Your task to perform on an android device: toggle location history Image 0: 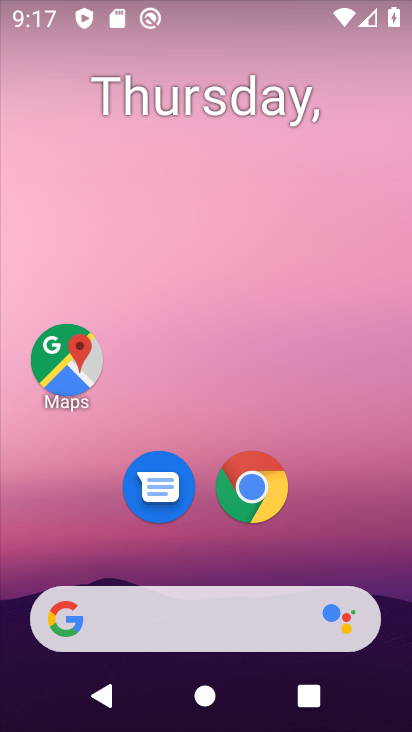
Step 0: drag from (309, 543) to (147, 141)
Your task to perform on an android device: toggle location history Image 1: 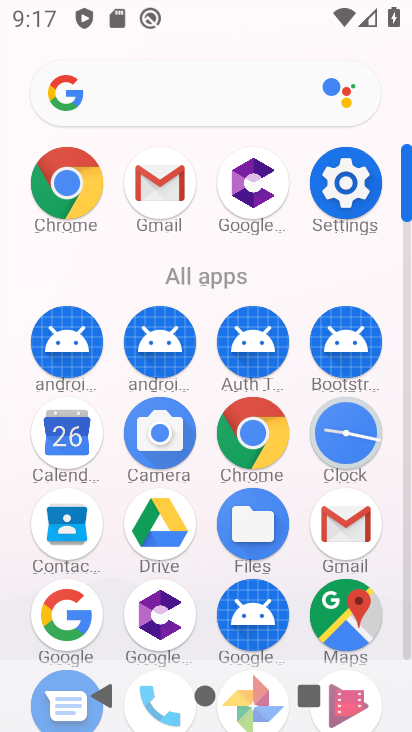
Step 1: click (357, 181)
Your task to perform on an android device: toggle location history Image 2: 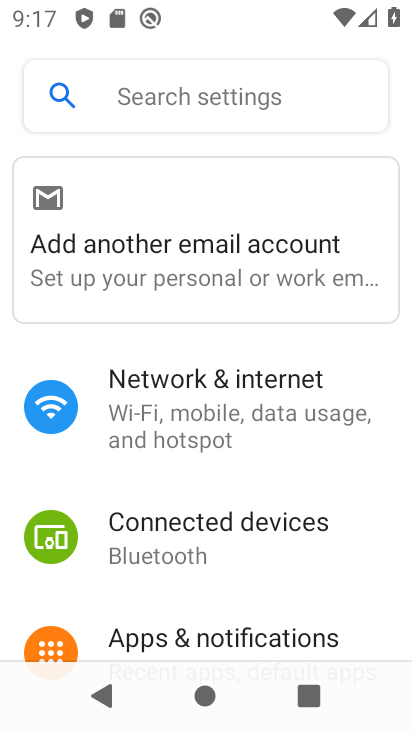
Step 2: drag from (232, 526) to (128, 64)
Your task to perform on an android device: toggle location history Image 3: 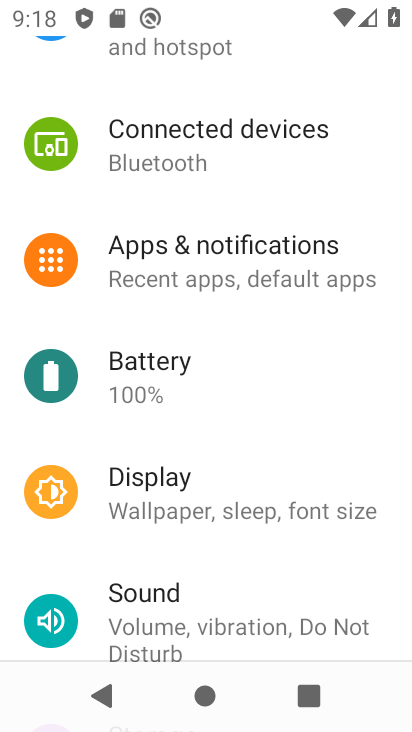
Step 3: drag from (198, 638) to (89, 118)
Your task to perform on an android device: toggle location history Image 4: 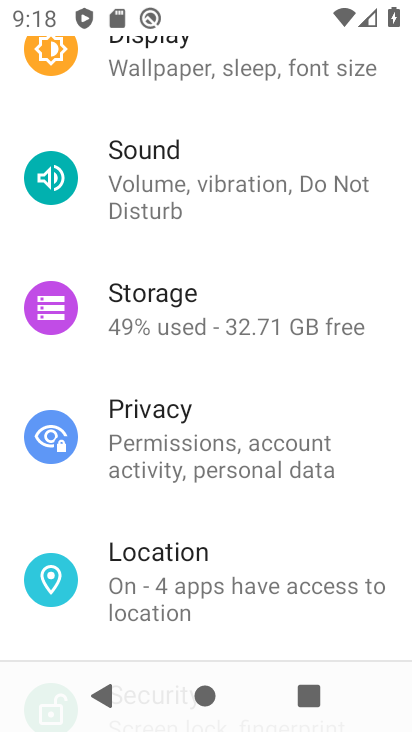
Step 4: click (170, 575)
Your task to perform on an android device: toggle location history Image 5: 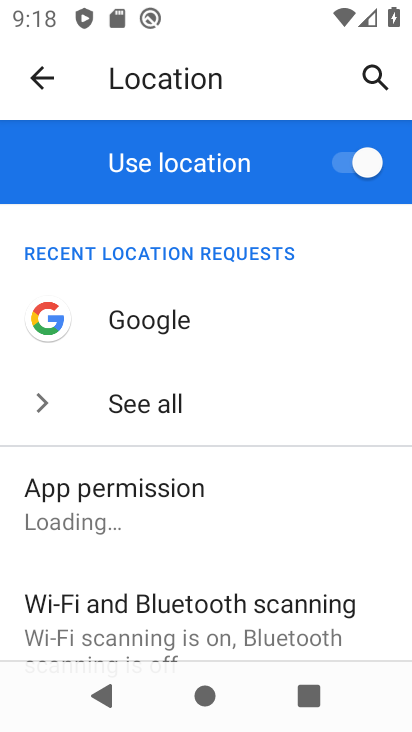
Step 5: drag from (204, 598) to (137, 145)
Your task to perform on an android device: toggle location history Image 6: 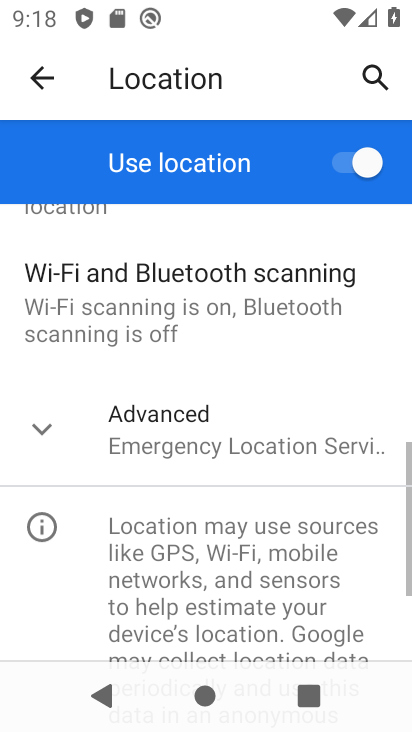
Step 6: click (129, 427)
Your task to perform on an android device: toggle location history Image 7: 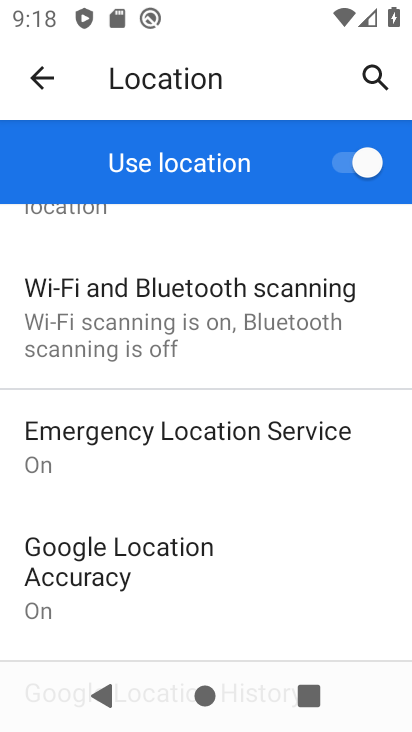
Step 7: drag from (165, 581) to (95, 176)
Your task to perform on an android device: toggle location history Image 8: 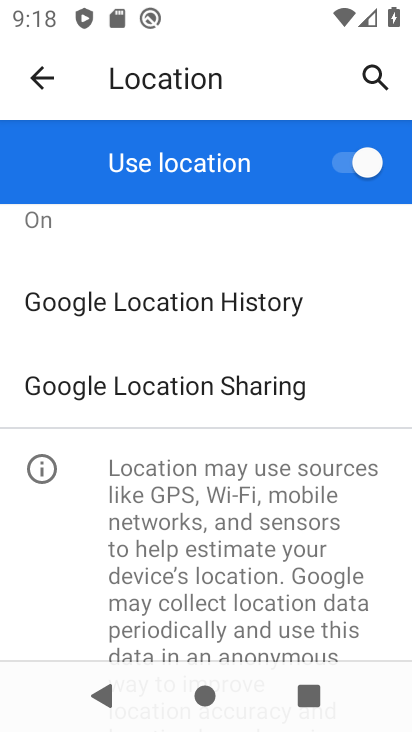
Step 8: click (130, 305)
Your task to perform on an android device: toggle location history Image 9: 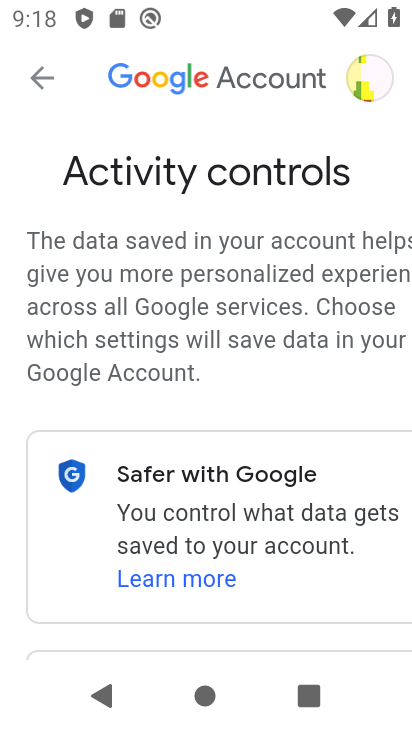
Step 9: drag from (258, 498) to (222, 112)
Your task to perform on an android device: toggle location history Image 10: 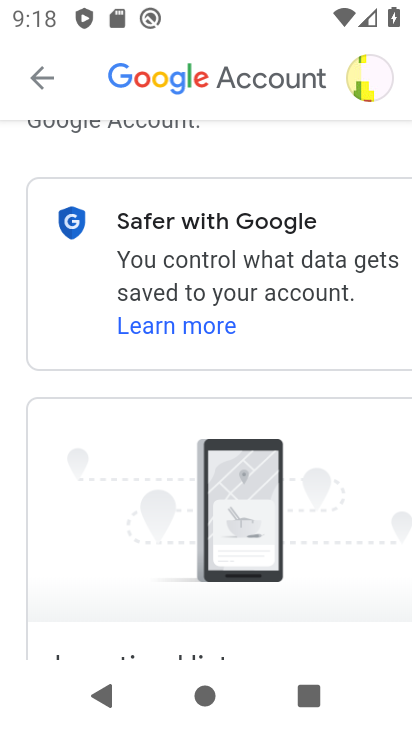
Step 10: drag from (289, 522) to (202, 146)
Your task to perform on an android device: toggle location history Image 11: 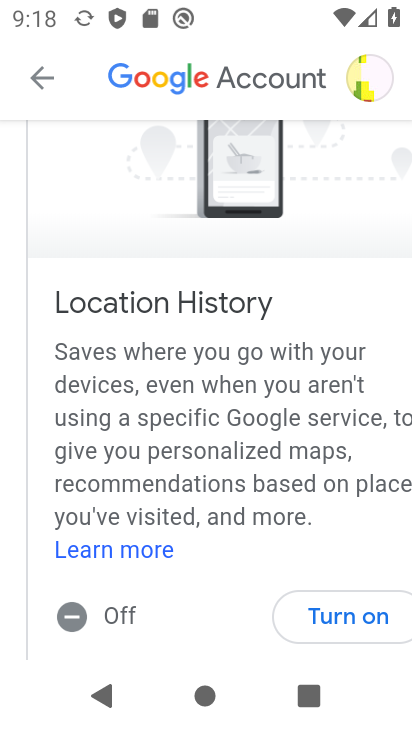
Step 11: click (329, 615)
Your task to perform on an android device: toggle location history Image 12: 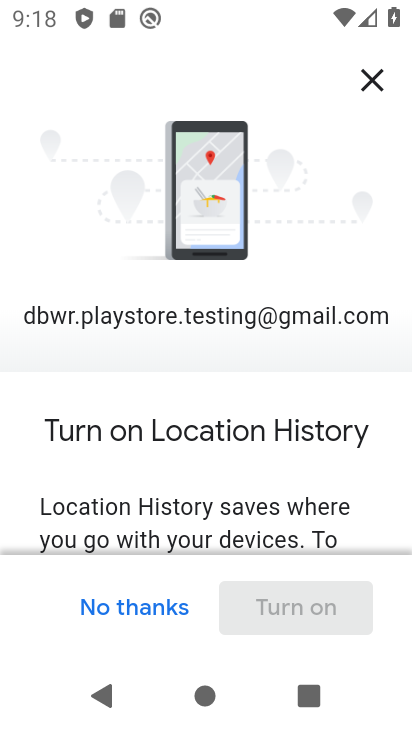
Step 12: drag from (291, 512) to (179, 61)
Your task to perform on an android device: toggle location history Image 13: 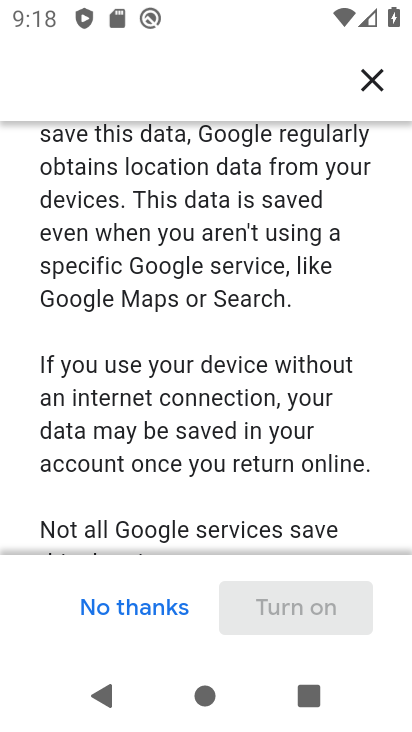
Step 13: drag from (222, 500) to (92, 0)
Your task to perform on an android device: toggle location history Image 14: 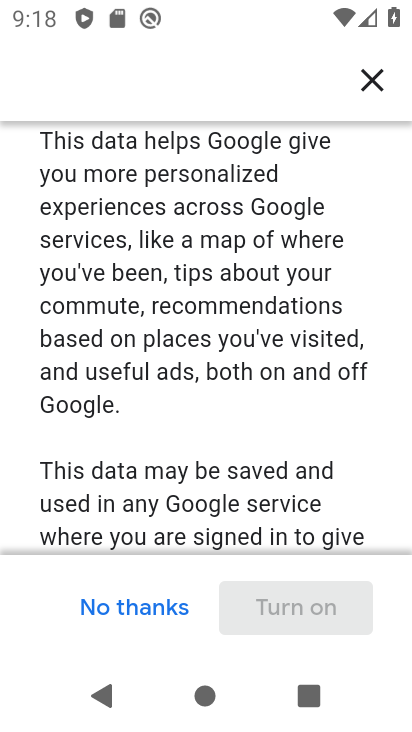
Step 14: drag from (213, 549) to (136, 190)
Your task to perform on an android device: toggle location history Image 15: 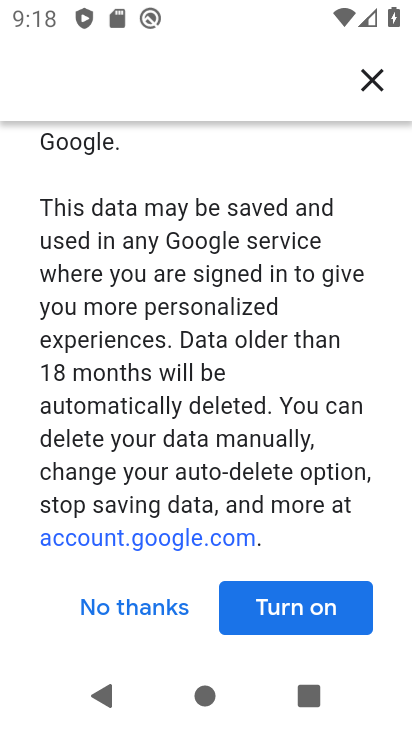
Step 15: click (297, 608)
Your task to perform on an android device: toggle location history Image 16: 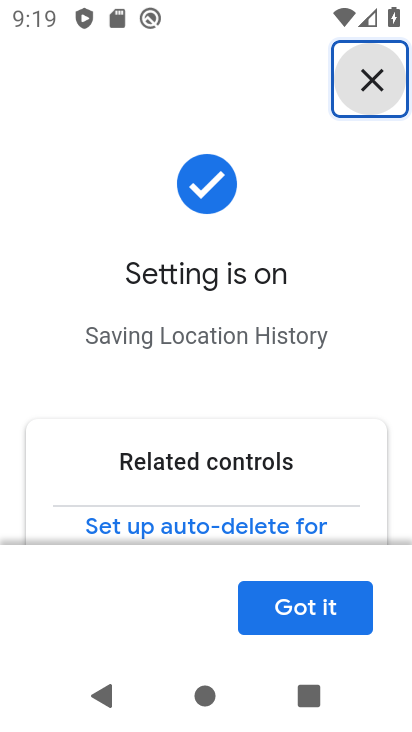
Step 16: click (297, 608)
Your task to perform on an android device: toggle location history Image 17: 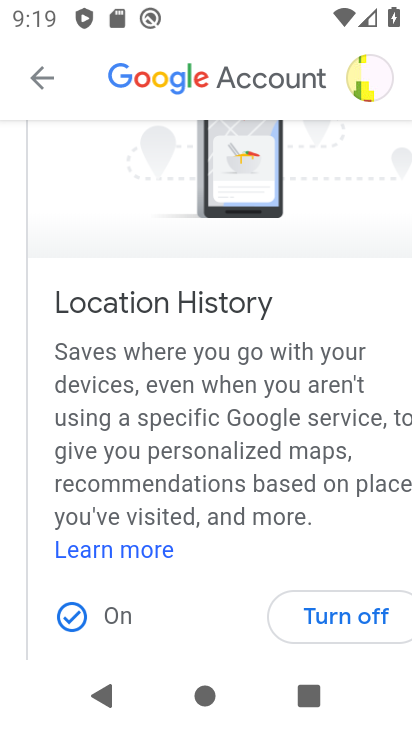
Step 17: task complete